Your task to perform on an android device: How much does the TCL TV cost? Image 0: 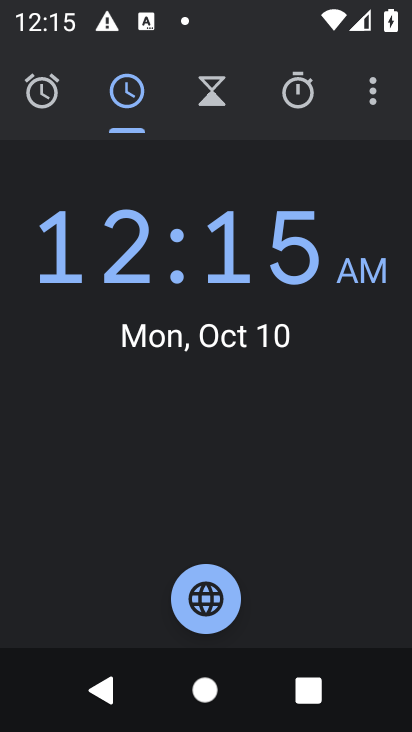
Step 0: press home button
Your task to perform on an android device: How much does the TCL TV cost? Image 1: 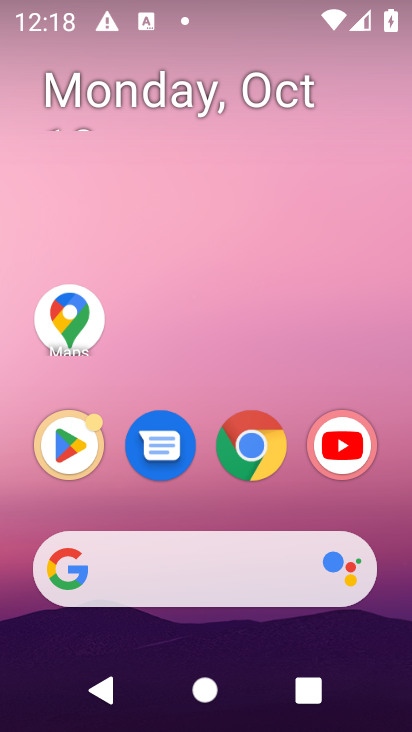
Step 1: click (254, 444)
Your task to perform on an android device: How much does the TCL TV cost? Image 2: 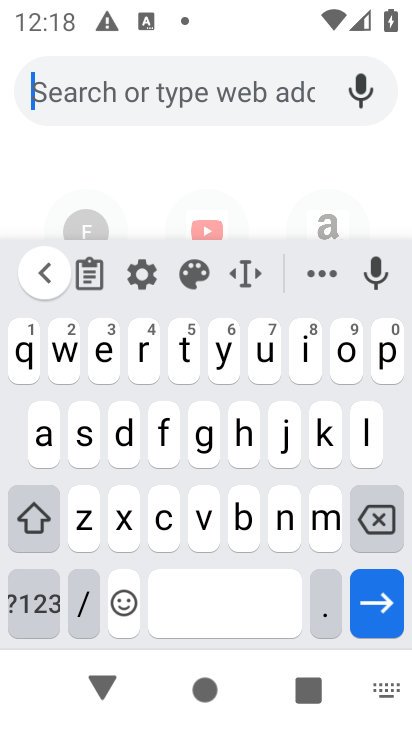
Step 2: click (204, 98)
Your task to perform on an android device: How much does the TCL TV cost? Image 3: 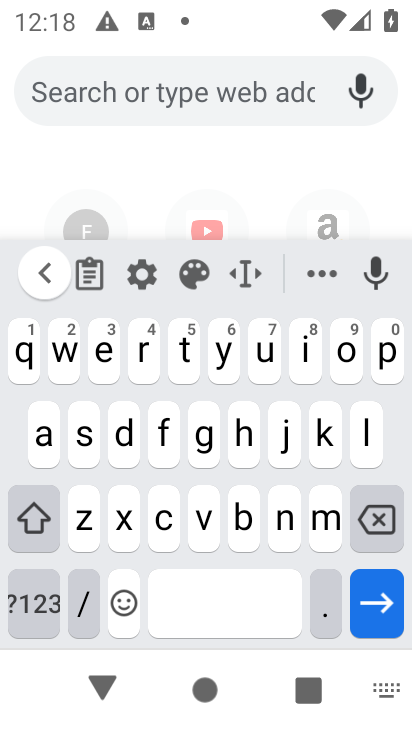
Step 3: type "how much does the tcl tv cost?"
Your task to perform on an android device: How much does the TCL TV cost? Image 4: 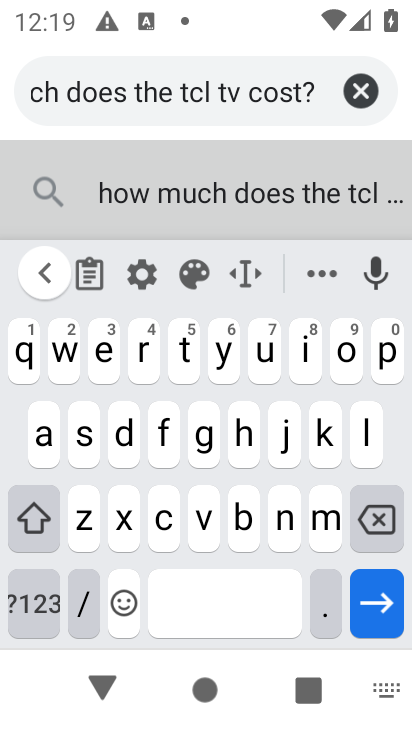
Step 4: click (257, 190)
Your task to perform on an android device: How much does the TCL TV cost? Image 5: 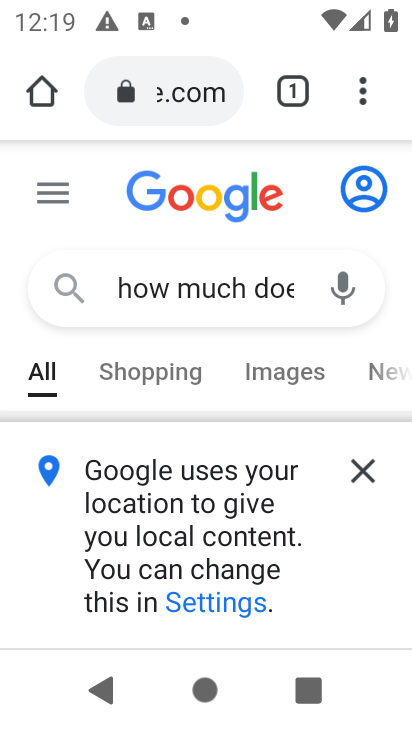
Step 5: click (361, 473)
Your task to perform on an android device: How much does the TCL TV cost? Image 6: 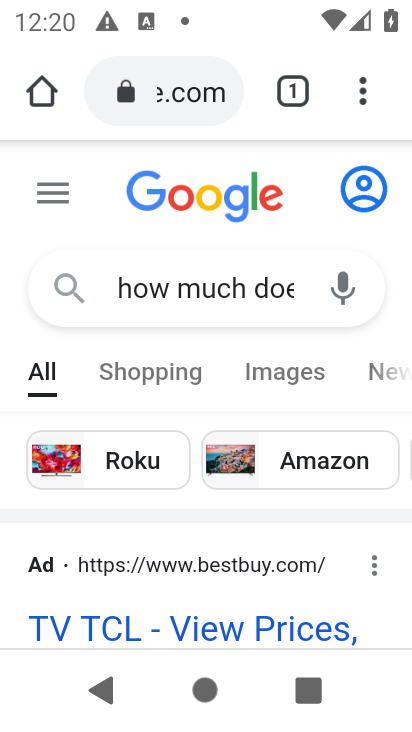
Step 6: task complete